Your task to perform on an android device: Clear all items from cart on target.com. Search for "logitech g910" on target.com, select the first entry, and add it to the cart. Image 0: 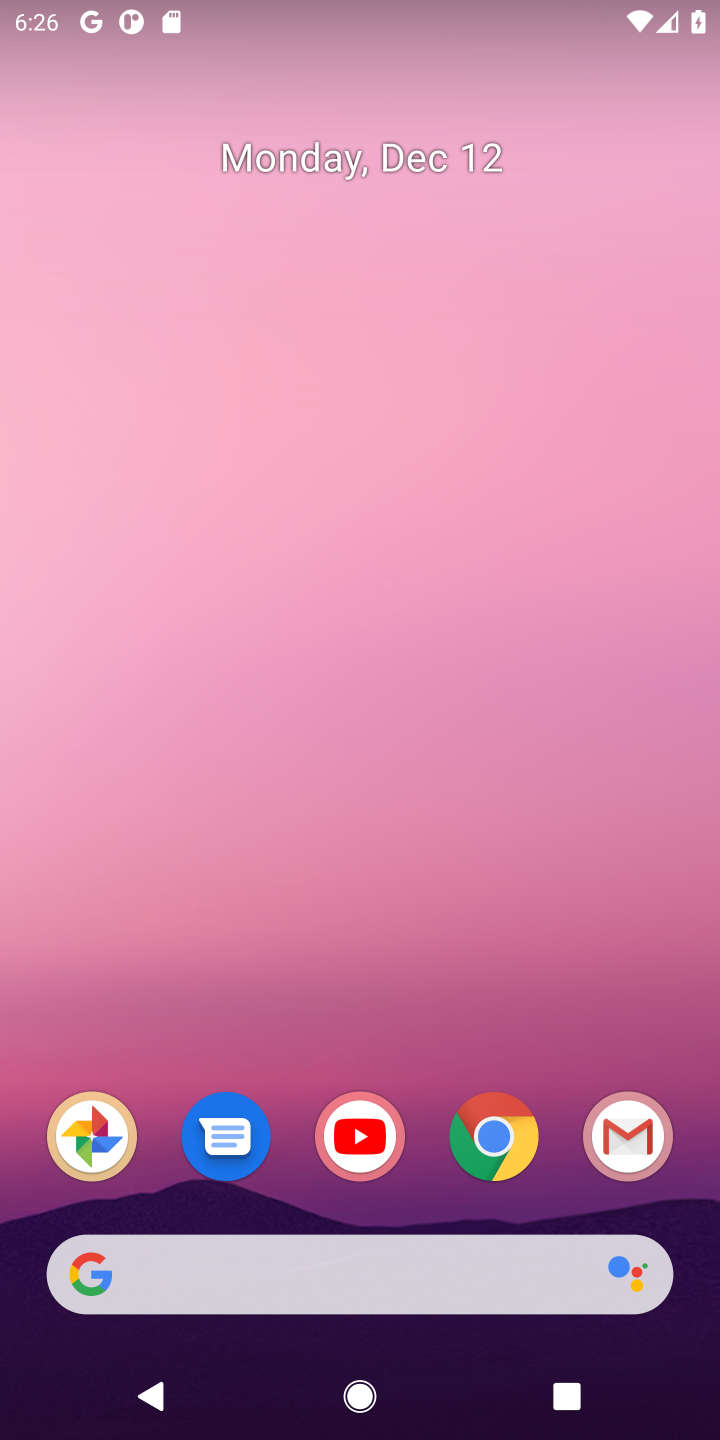
Step 0: click (505, 1144)
Your task to perform on an android device: Clear all items from cart on target.com. Search for "logitech g910" on target.com, select the first entry, and add it to the cart. Image 1: 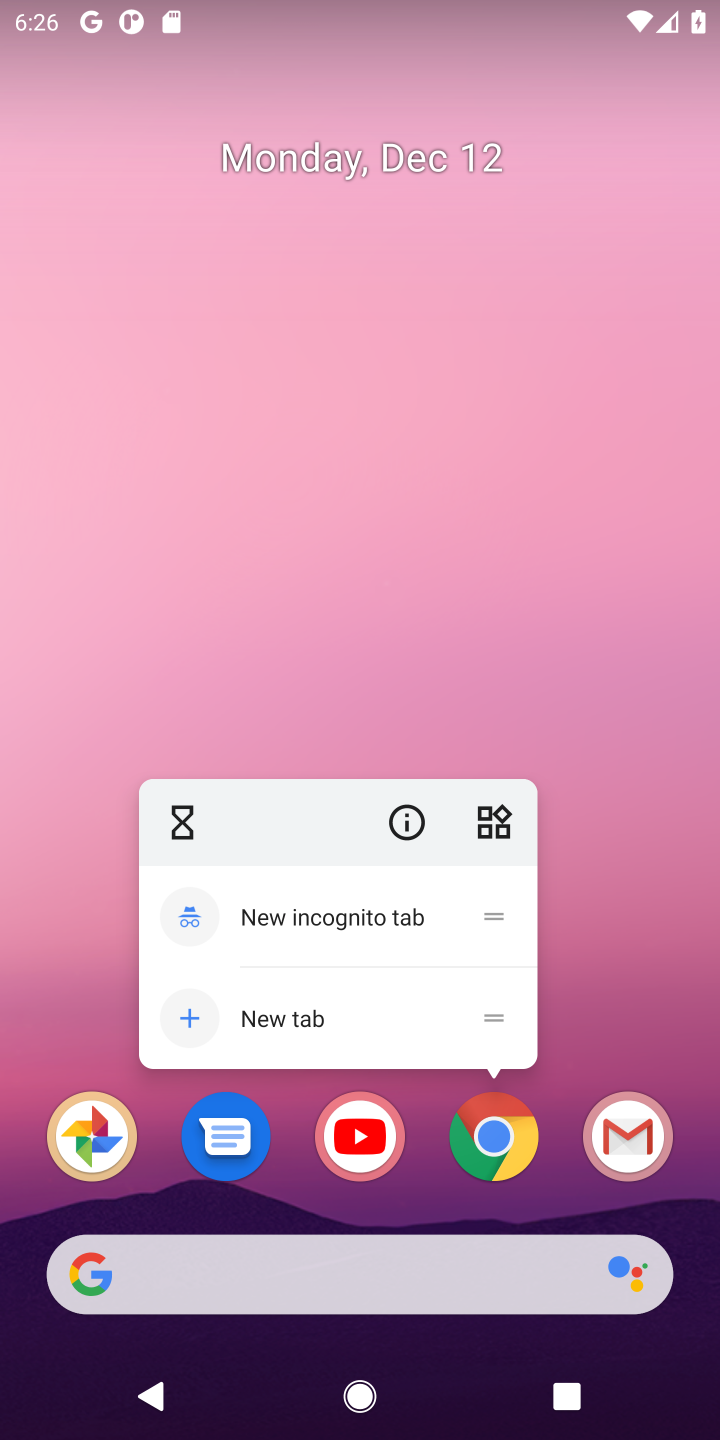
Step 1: click (505, 1144)
Your task to perform on an android device: Clear all items from cart on target.com. Search for "logitech g910" on target.com, select the first entry, and add it to the cart. Image 2: 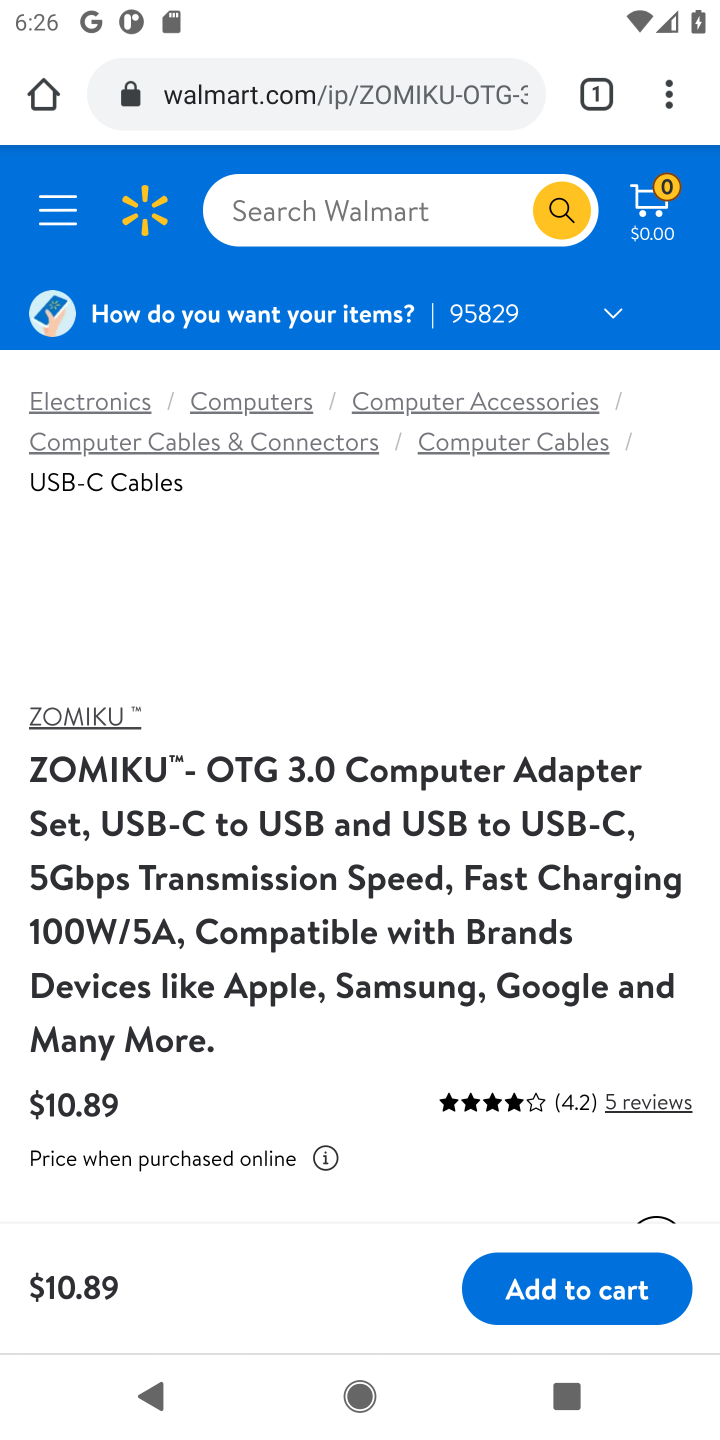
Step 2: click (273, 97)
Your task to perform on an android device: Clear all items from cart on target.com. Search for "logitech g910" on target.com, select the first entry, and add it to the cart. Image 3: 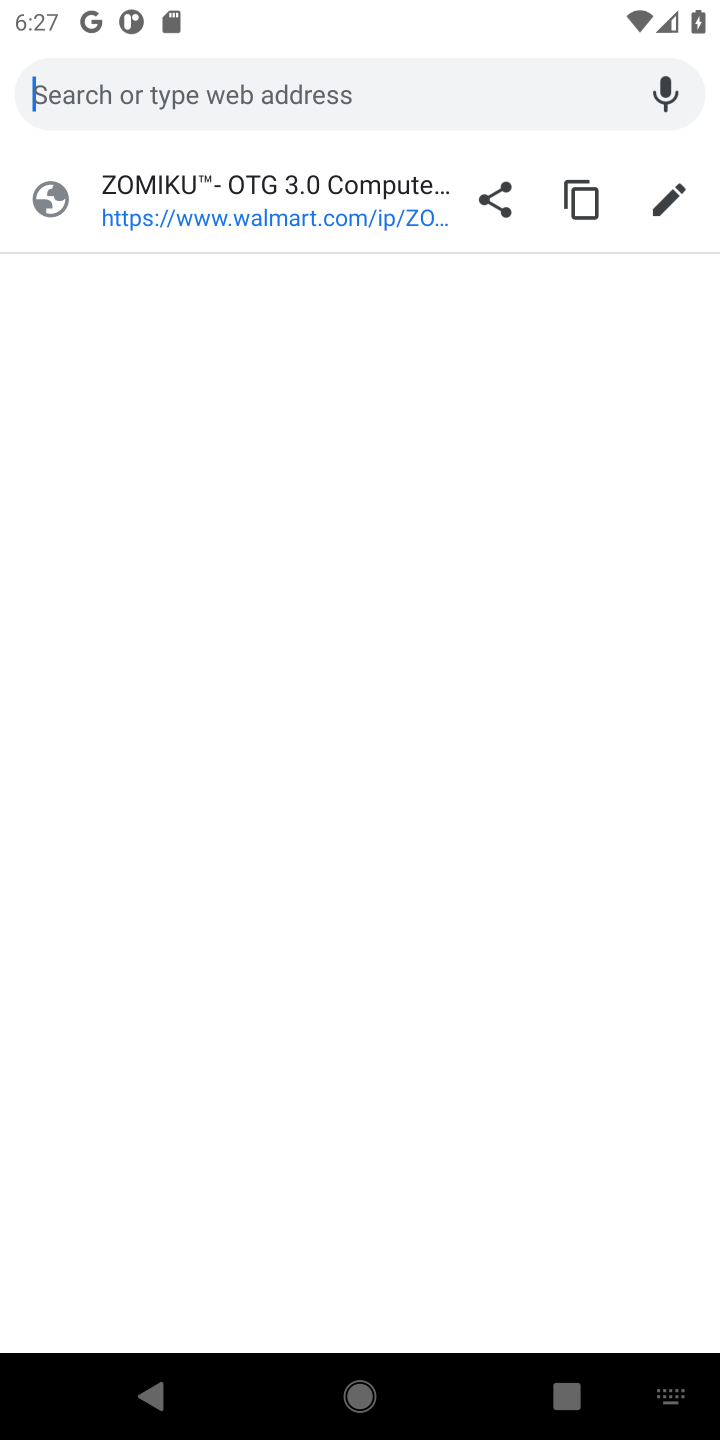
Step 3: type "target.com"
Your task to perform on an android device: Clear all items from cart on target.com. Search for "logitech g910" on target.com, select the first entry, and add it to the cart. Image 4: 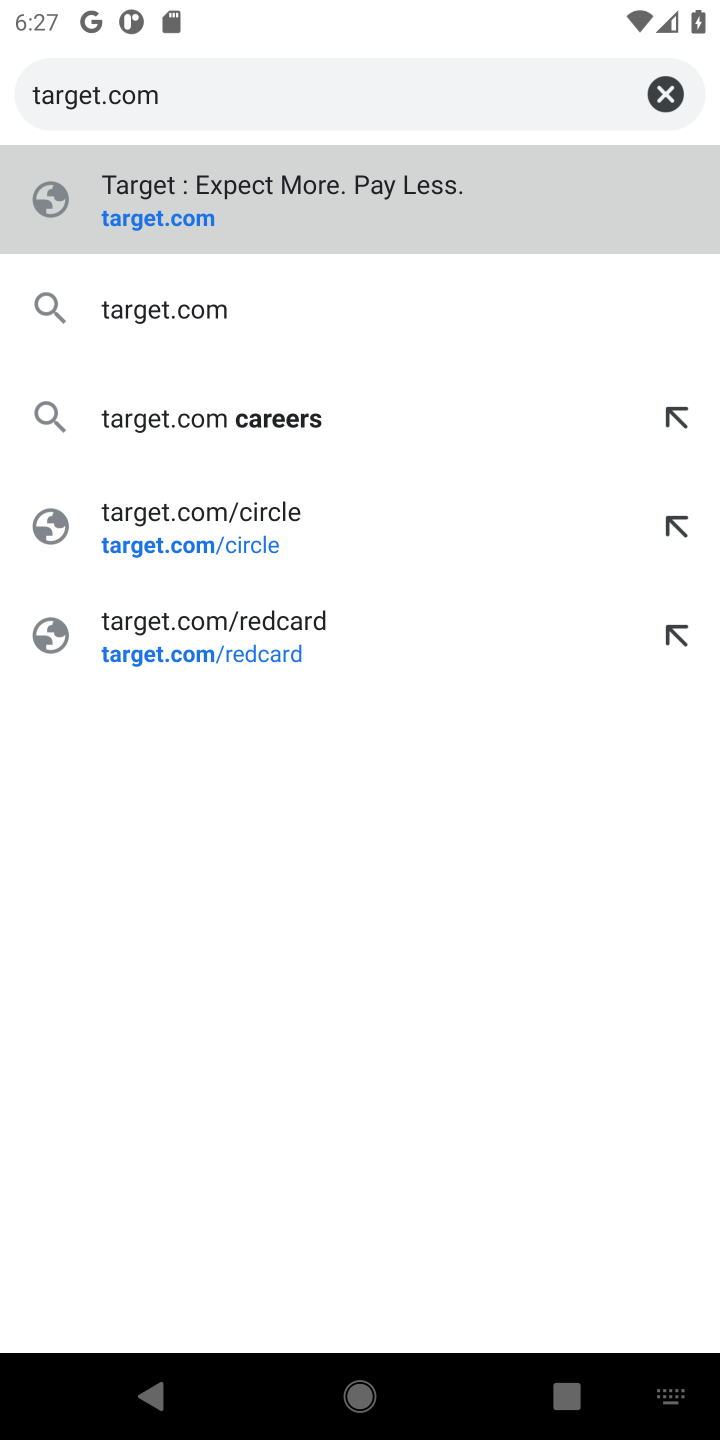
Step 4: click (143, 236)
Your task to perform on an android device: Clear all items from cart on target.com. Search for "logitech g910" on target.com, select the first entry, and add it to the cart. Image 5: 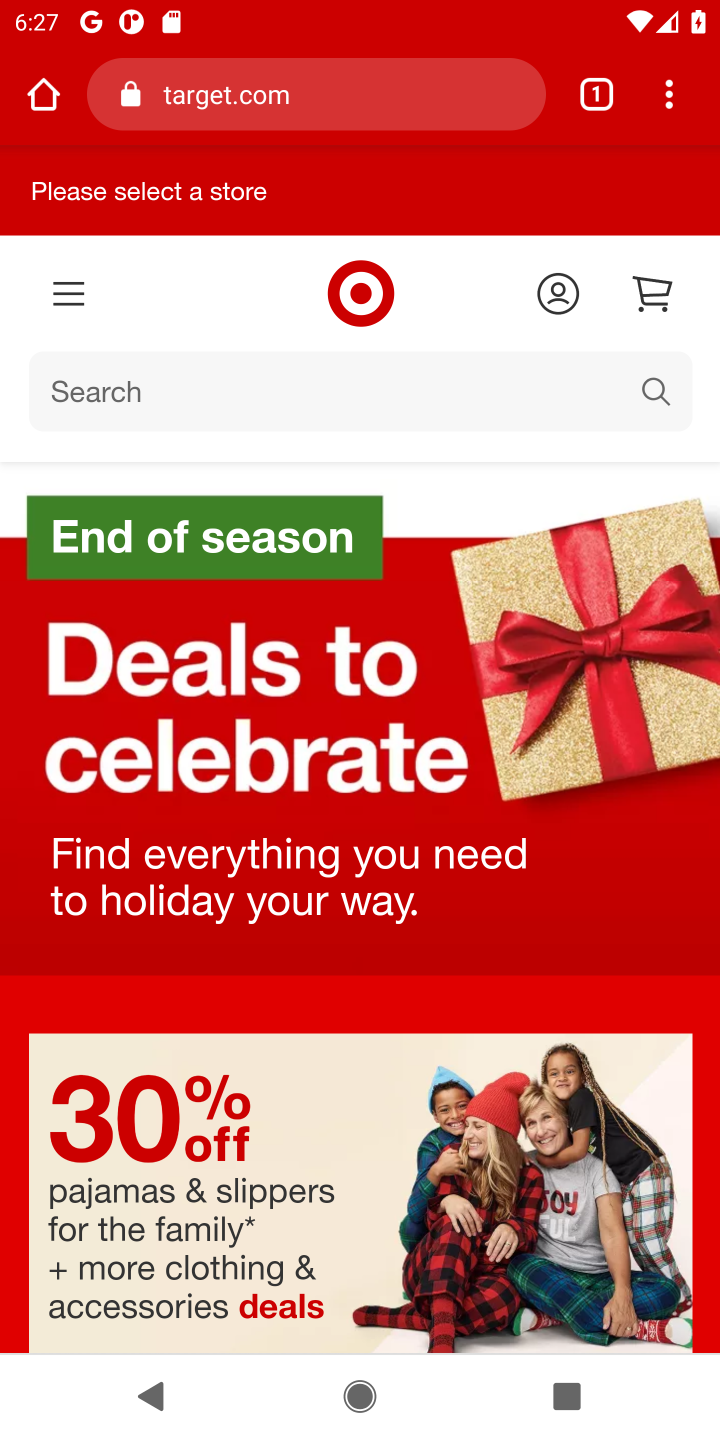
Step 5: click (648, 304)
Your task to perform on an android device: Clear all items from cart on target.com. Search for "logitech g910" on target.com, select the first entry, and add it to the cart. Image 6: 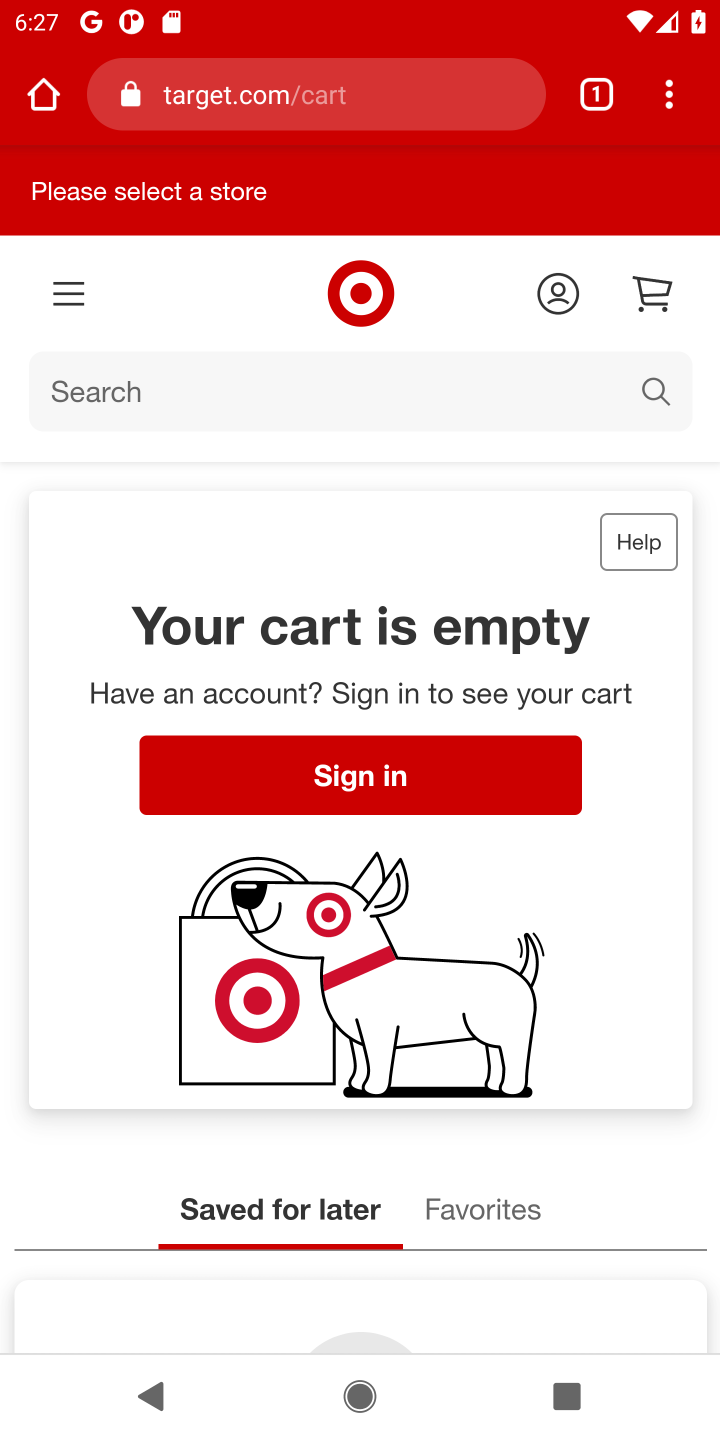
Step 6: click (131, 397)
Your task to perform on an android device: Clear all items from cart on target.com. Search for "logitech g910" on target.com, select the first entry, and add it to the cart. Image 7: 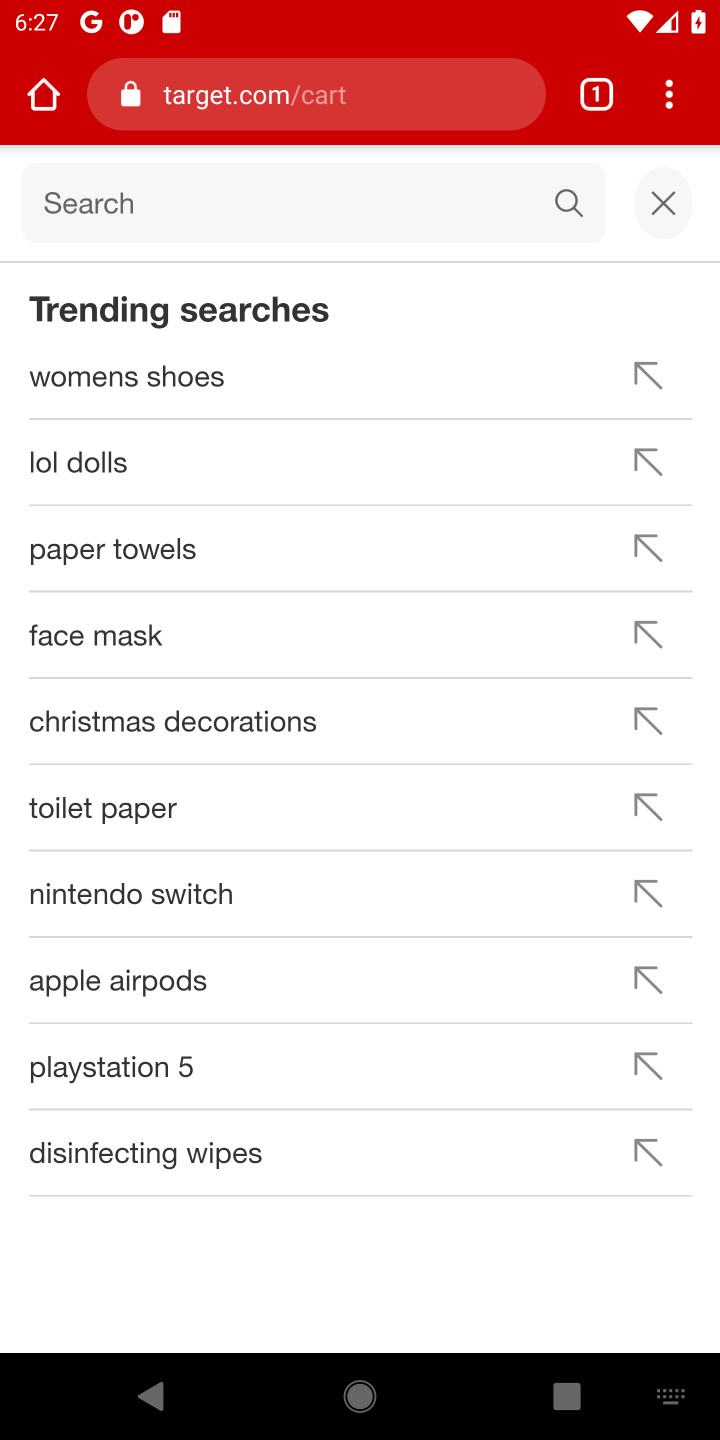
Step 7: type "logitech g910"
Your task to perform on an android device: Clear all items from cart on target.com. Search for "logitech g910" on target.com, select the first entry, and add it to the cart. Image 8: 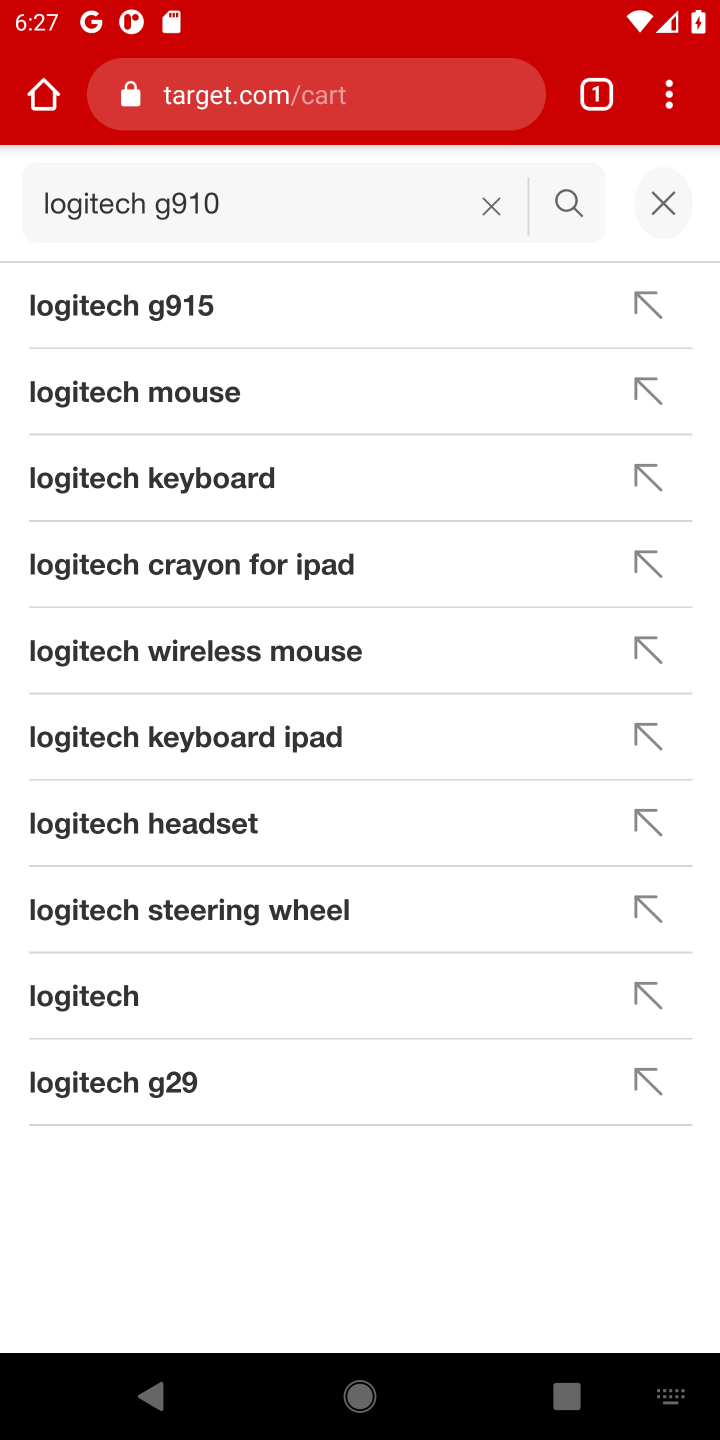
Step 8: click (574, 201)
Your task to perform on an android device: Clear all items from cart on target.com. Search for "logitech g910" on target.com, select the first entry, and add it to the cart. Image 9: 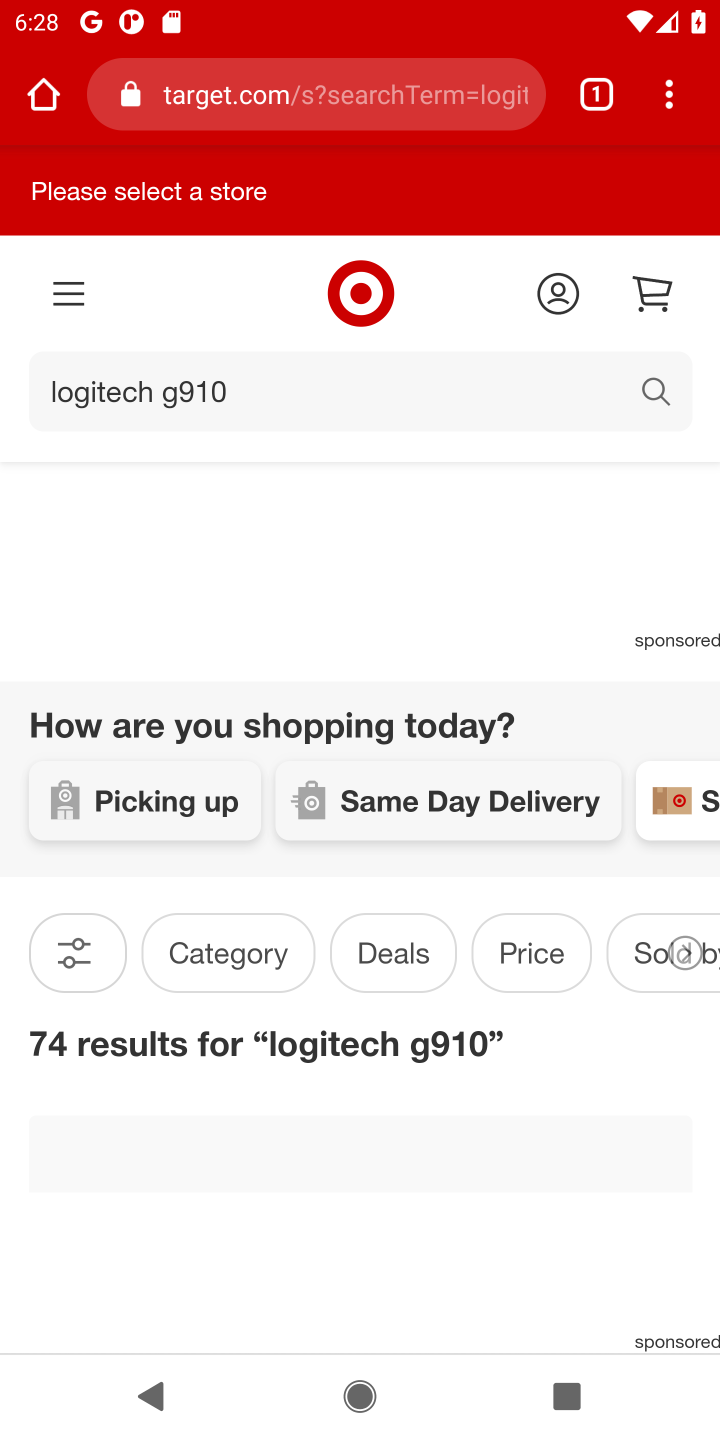
Step 9: task complete